Your task to perform on an android device: toggle airplane mode Image 0: 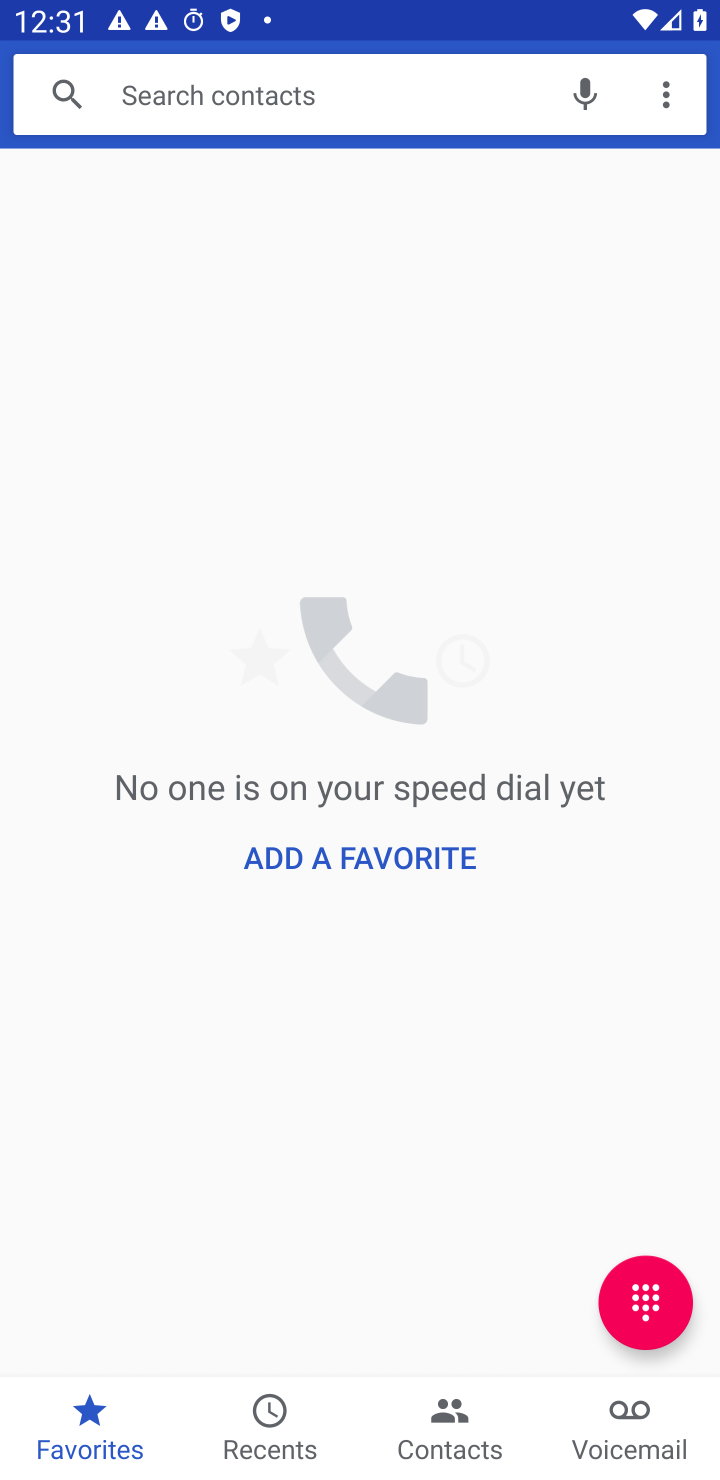
Step 0: press home button
Your task to perform on an android device: toggle airplane mode Image 1: 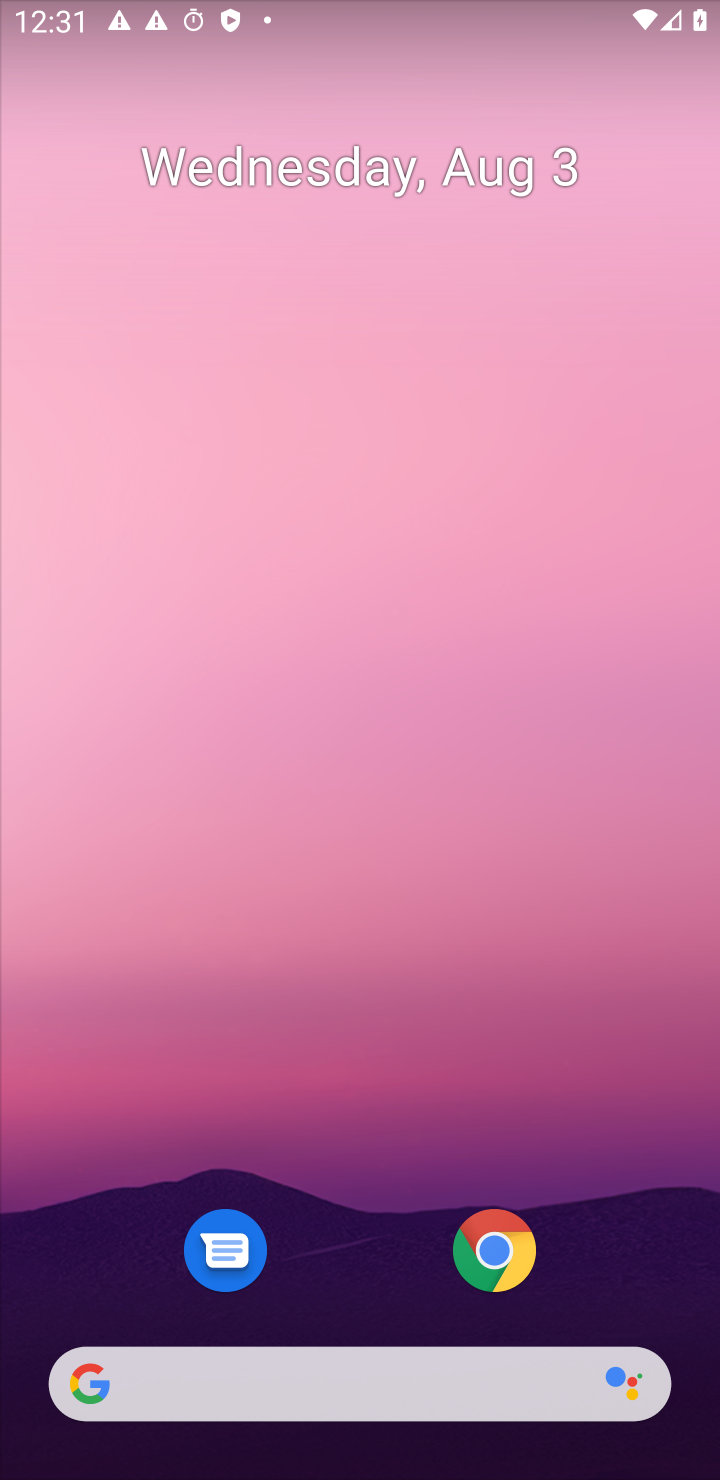
Step 1: drag from (351, 1258) to (412, 313)
Your task to perform on an android device: toggle airplane mode Image 2: 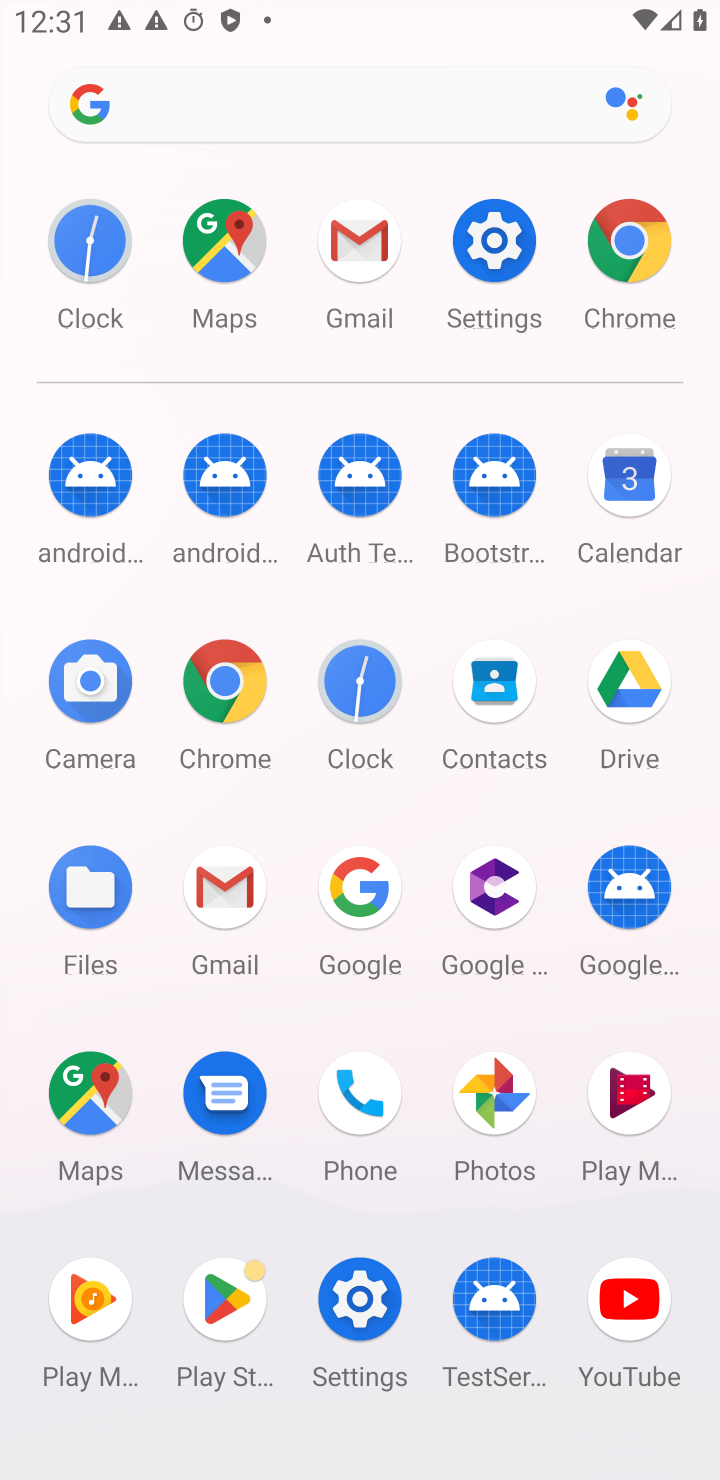
Step 2: click (494, 245)
Your task to perform on an android device: toggle airplane mode Image 3: 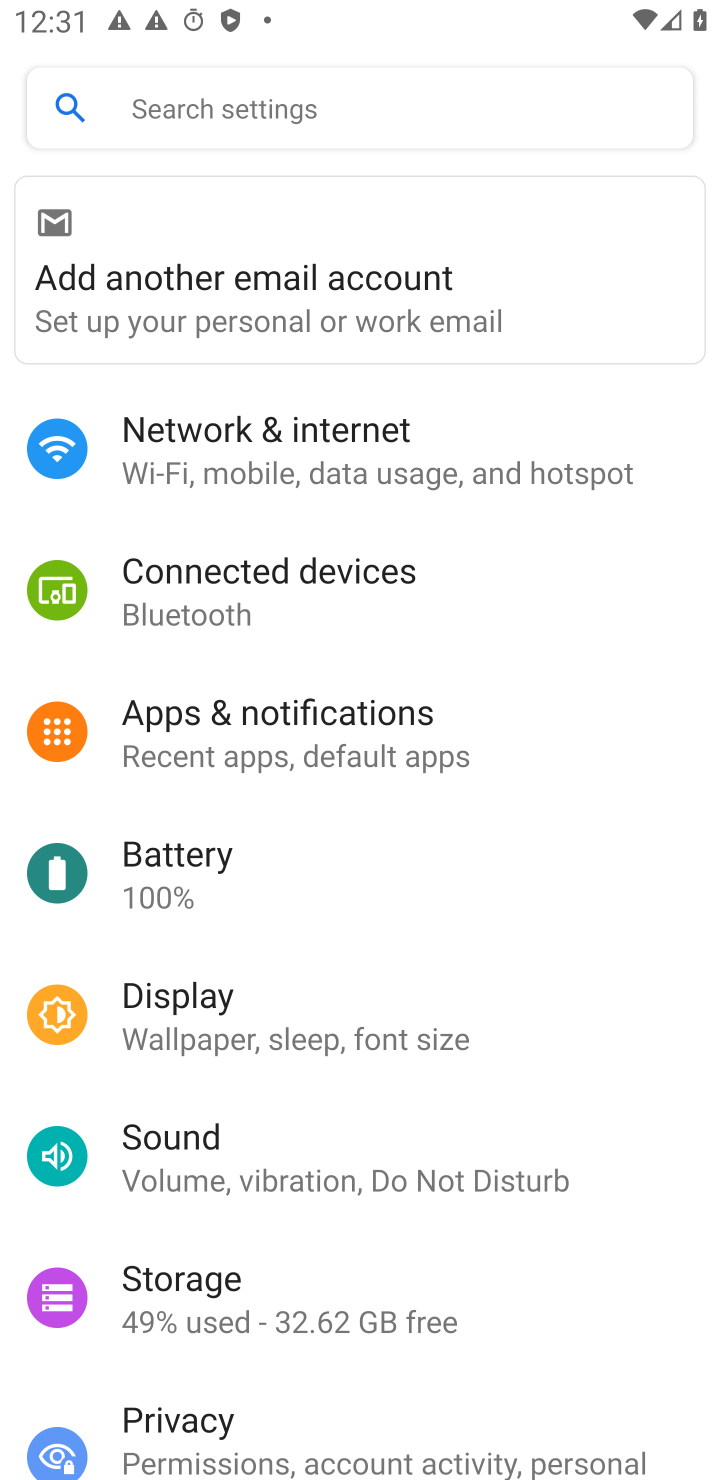
Step 3: click (419, 459)
Your task to perform on an android device: toggle airplane mode Image 4: 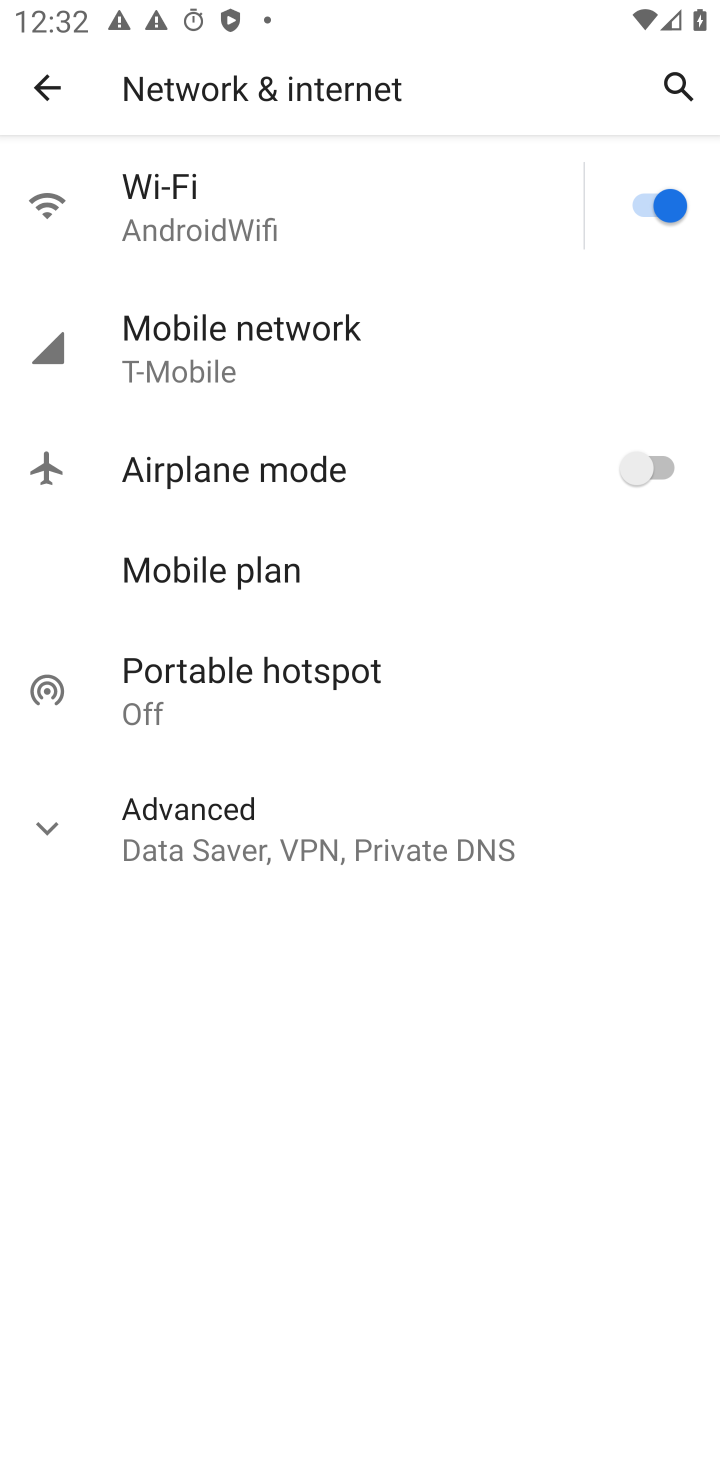
Step 4: click (636, 471)
Your task to perform on an android device: toggle airplane mode Image 5: 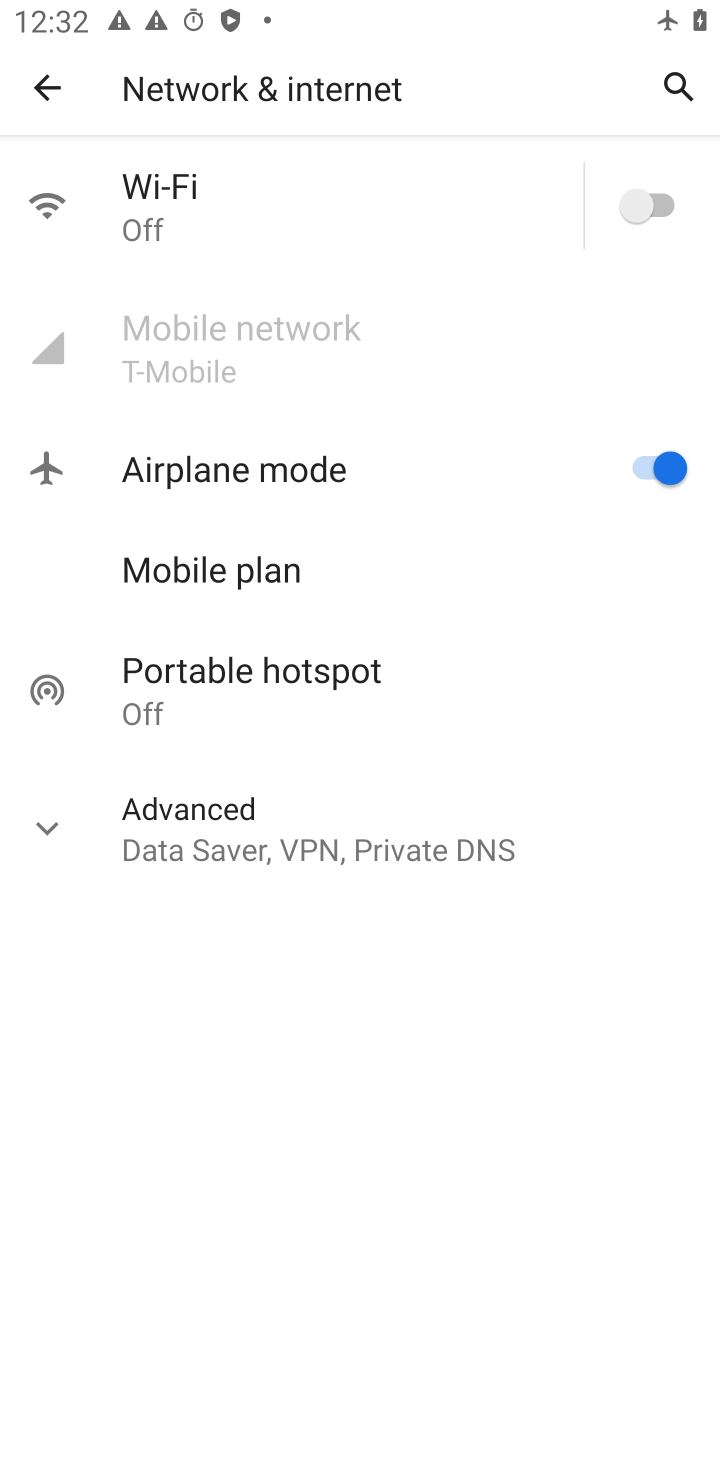
Step 5: task complete